Your task to perform on an android device: See recent photos Image 0: 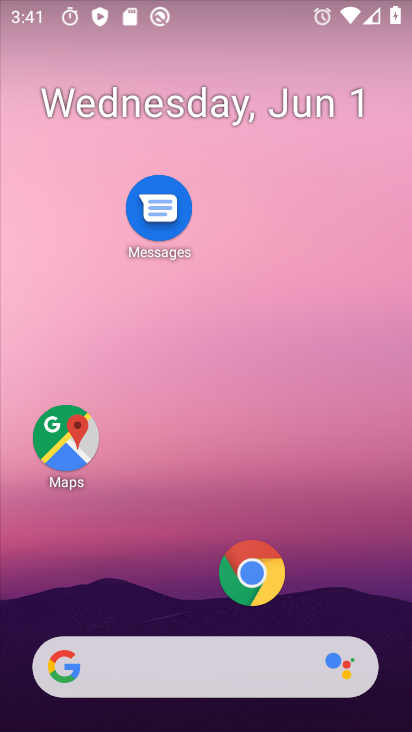
Step 0: drag from (197, 575) to (245, 245)
Your task to perform on an android device: See recent photos Image 1: 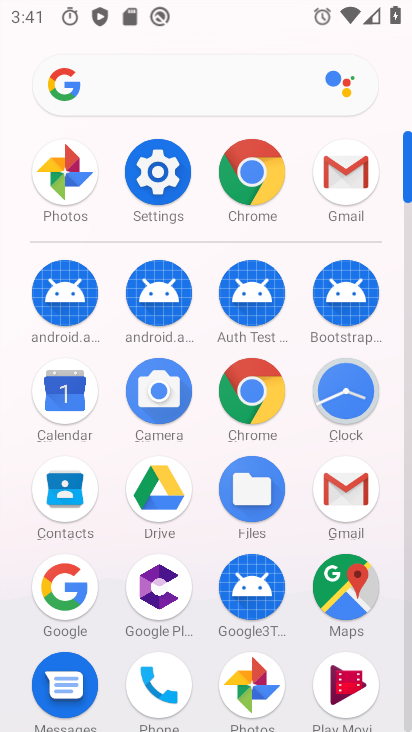
Step 1: click (259, 655)
Your task to perform on an android device: See recent photos Image 2: 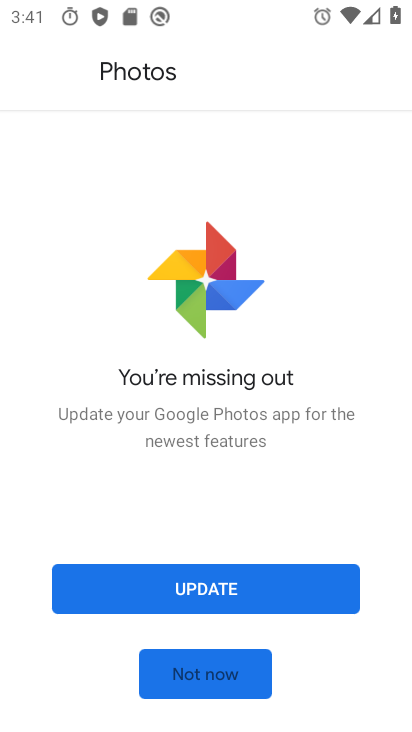
Step 2: click (199, 656)
Your task to perform on an android device: See recent photos Image 3: 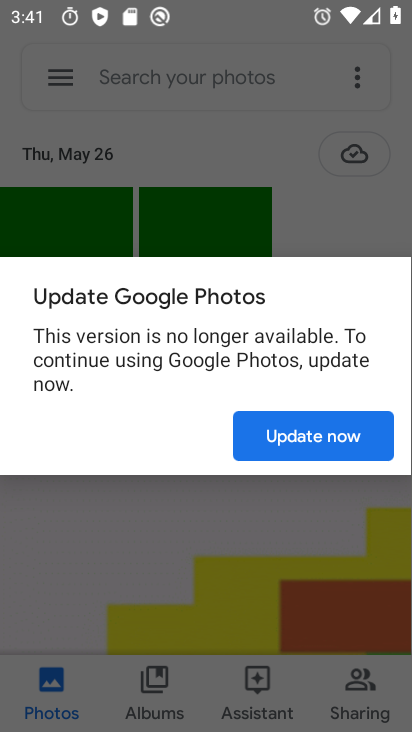
Step 3: click (298, 434)
Your task to perform on an android device: See recent photos Image 4: 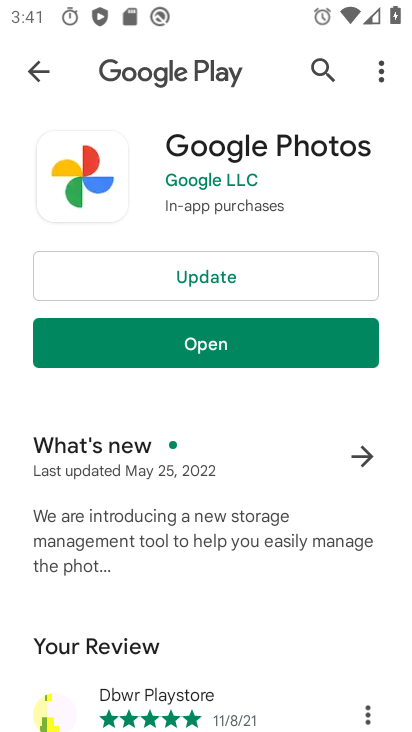
Step 4: click (224, 355)
Your task to perform on an android device: See recent photos Image 5: 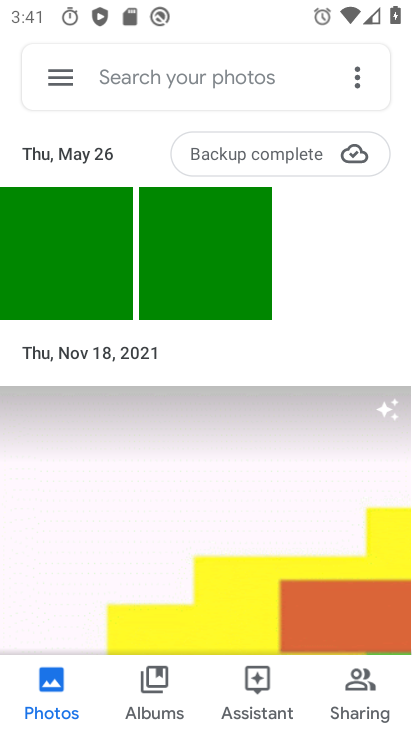
Step 5: task complete